Your task to perform on an android device: check storage Image 0: 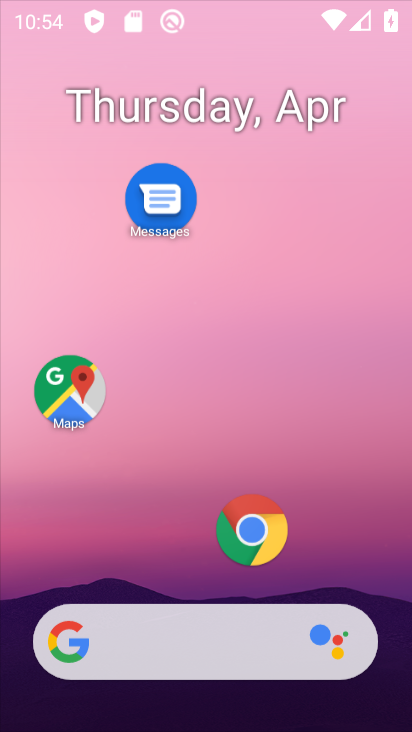
Step 0: click (203, 219)
Your task to perform on an android device: check storage Image 1: 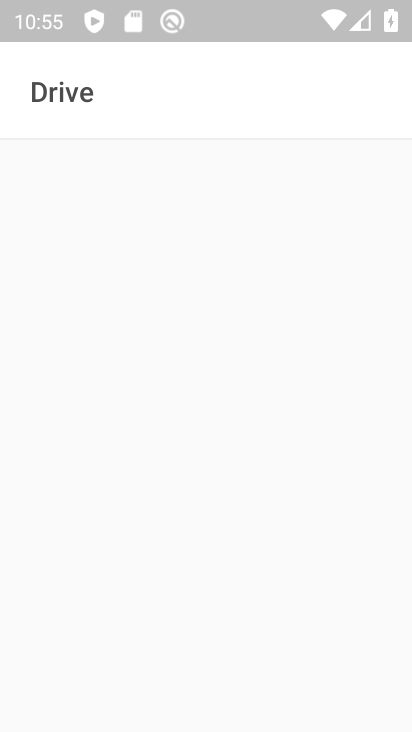
Step 1: press home button
Your task to perform on an android device: check storage Image 2: 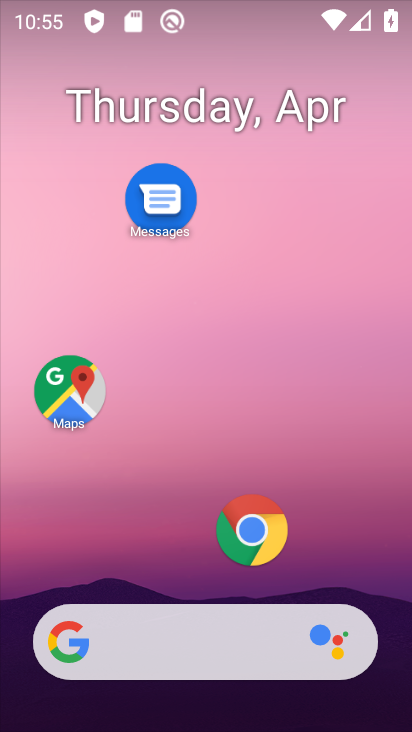
Step 2: drag from (217, 685) to (213, 203)
Your task to perform on an android device: check storage Image 3: 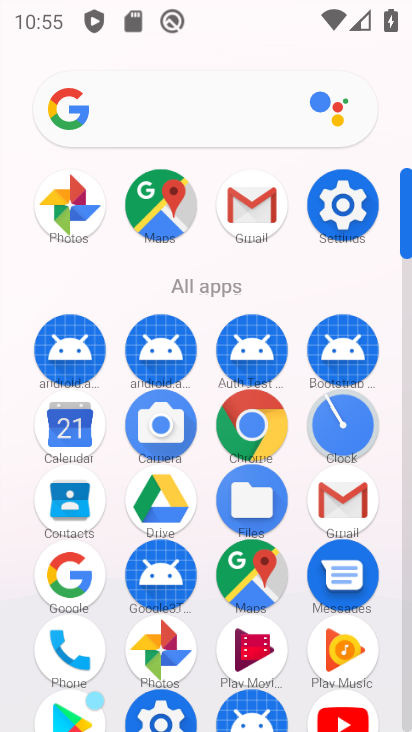
Step 3: click (346, 210)
Your task to perform on an android device: check storage Image 4: 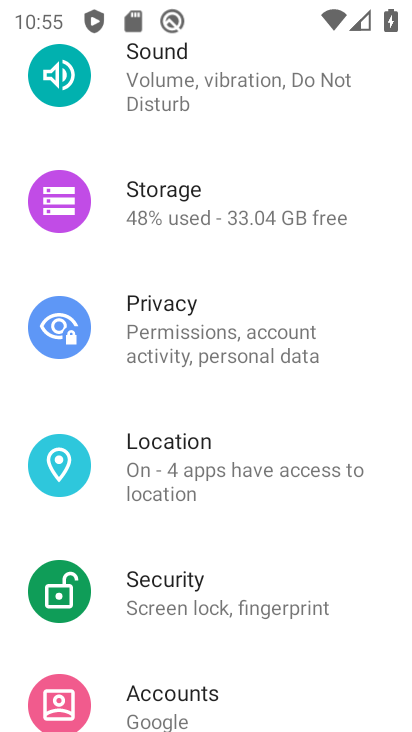
Step 4: click (165, 207)
Your task to perform on an android device: check storage Image 5: 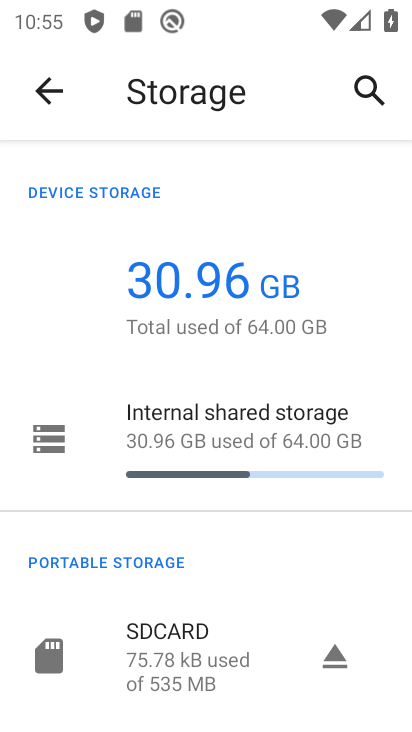
Step 5: task complete